Your task to perform on an android device: Go to CNN.com Image 0: 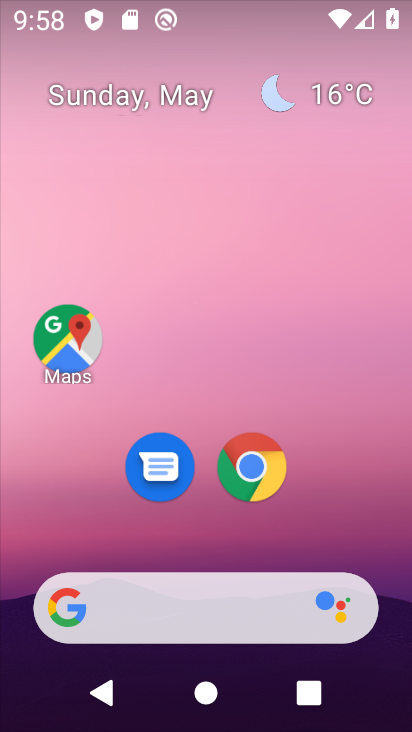
Step 0: drag from (356, 493) to (365, 167)
Your task to perform on an android device: Go to CNN.com Image 1: 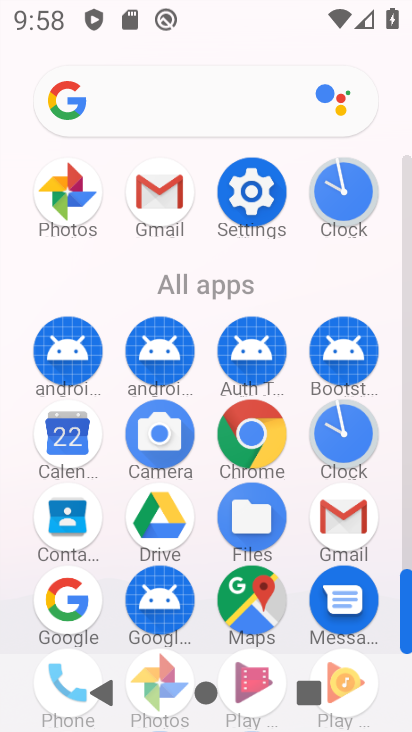
Step 1: click (262, 448)
Your task to perform on an android device: Go to CNN.com Image 2: 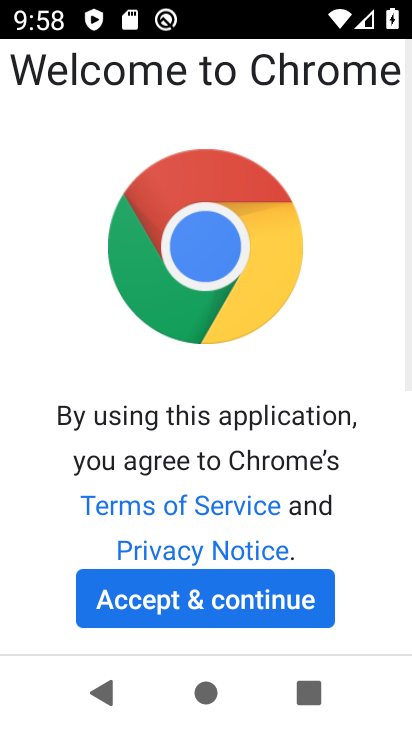
Step 2: click (246, 618)
Your task to perform on an android device: Go to CNN.com Image 3: 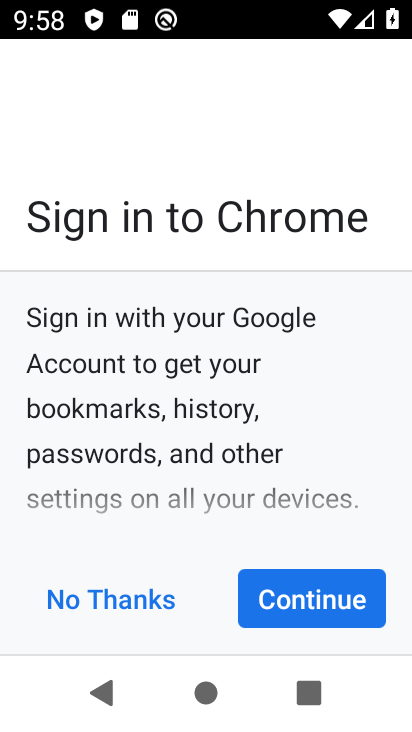
Step 3: click (250, 608)
Your task to perform on an android device: Go to CNN.com Image 4: 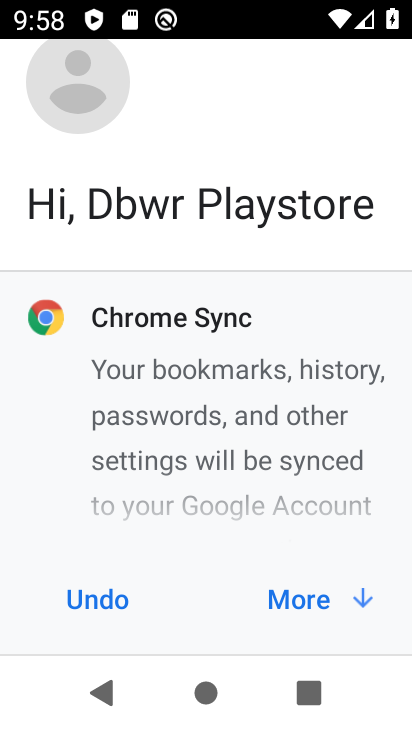
Step 4: click (264, 613)
Your task to perform on an android device: Go to CNN.com Image 5: 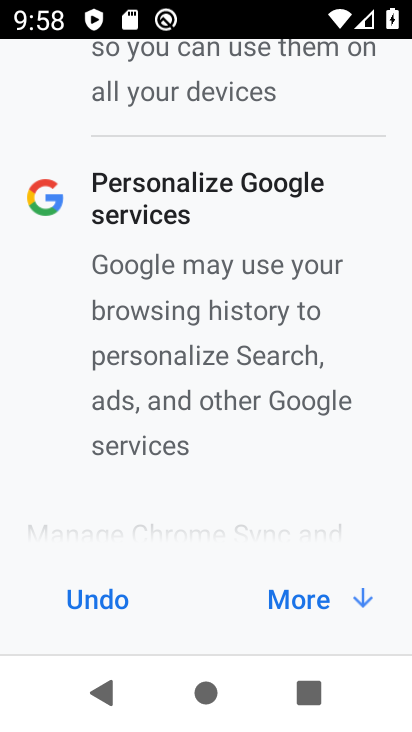
Step 5: click (265, 614)
Your task to perform on an android device: Go to CNN.com Image 6: 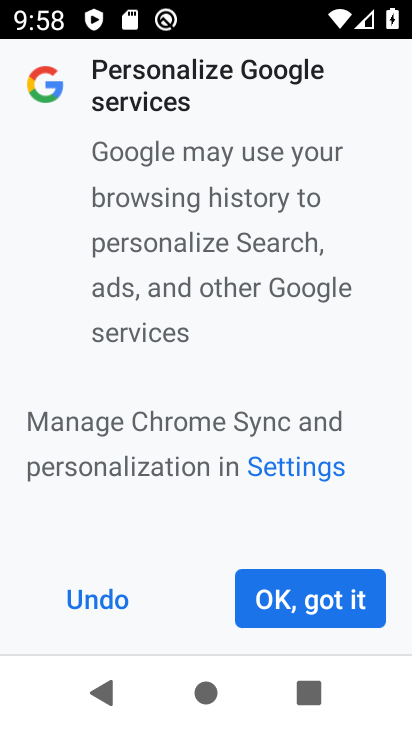
Step 6: click (265, 614)
Your task to perform on an android device: Go to CNN.com Image 7: 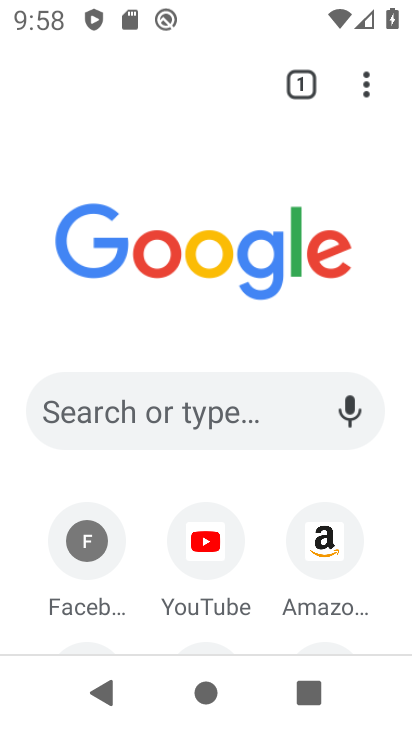
Step 7: click (260, 402)
Your task to perform on an android device: Go to CNN.com Image 8: 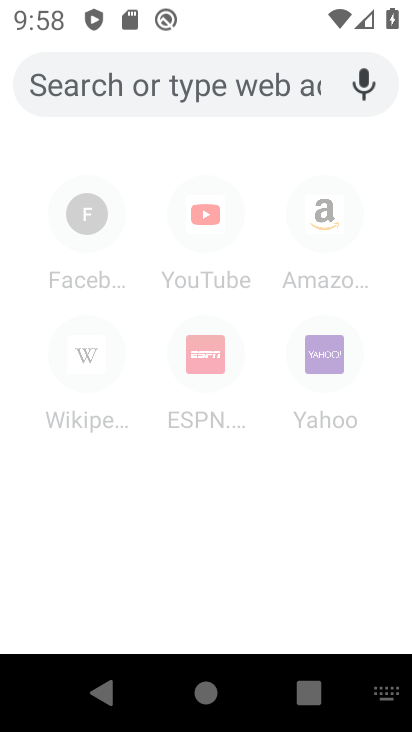
Step 8: type "cnn.com"
Your task to perform on an android device: Go to CNN.com Image 9: 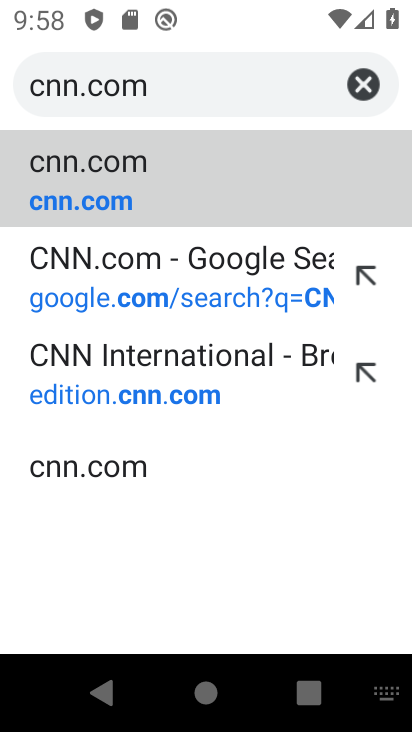
Step 9: click (267, 214)
Your task to perform on an android device: Go to CNN.com Image 10: 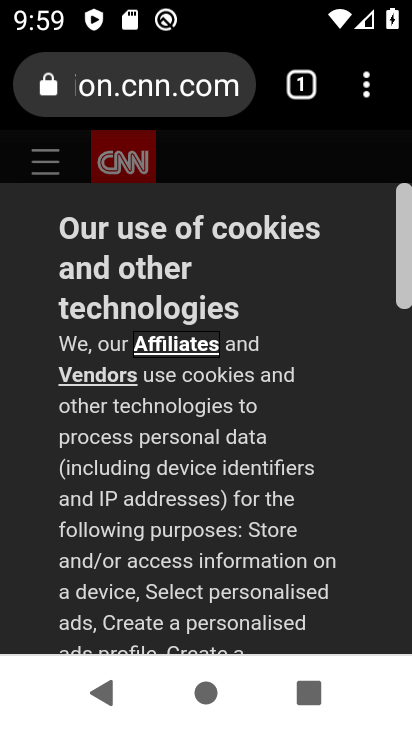
Step 10: task complete